Your task to perform on an android device: Open Android settings Image 0: 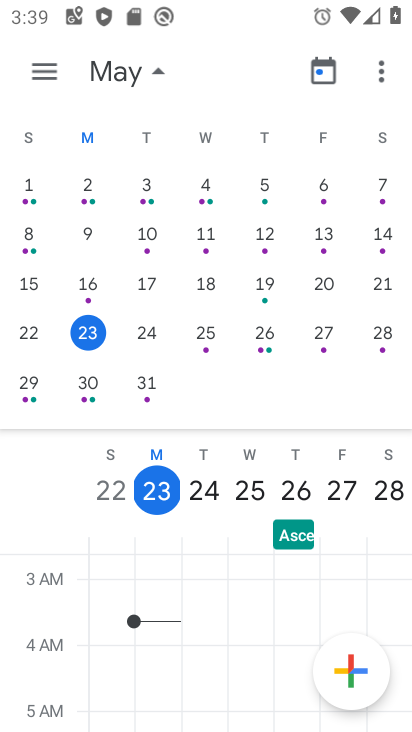
Step 0: press home button
Your task to perform on an android device: Open Android settings Image 1: 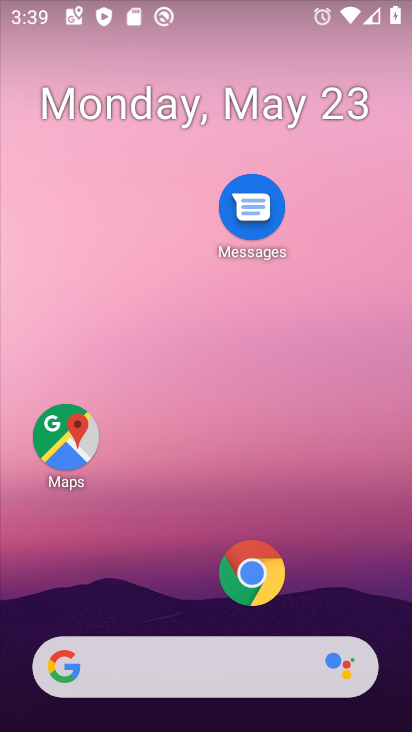
Step 1: drag from (311, 632) to (356, 93)
Your task to perform on an android device: Open Android settings Image 2: 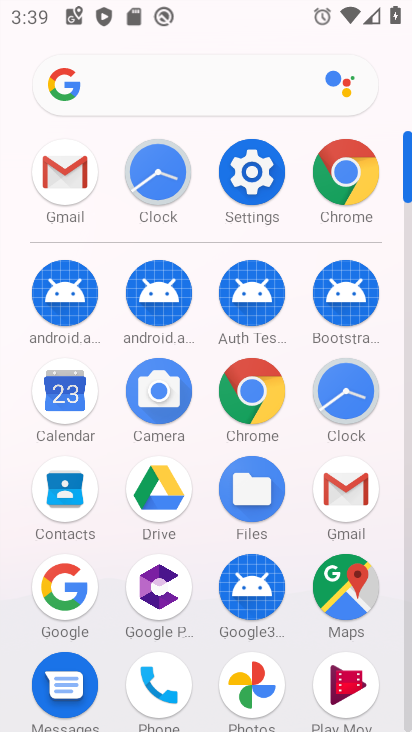
Step 2: click (252, 159)
Your task to perform on an android device: Open Android settings Image 3: 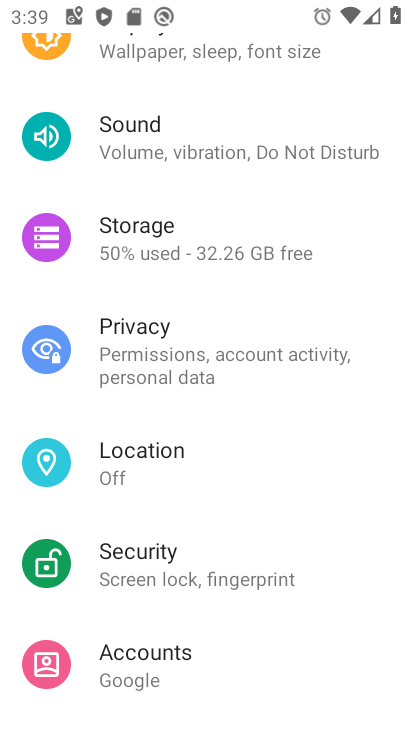
Step 3: drag from (217, 652) to (235, 78)
Your task to perform on an android device: Open Android settings Image 4: 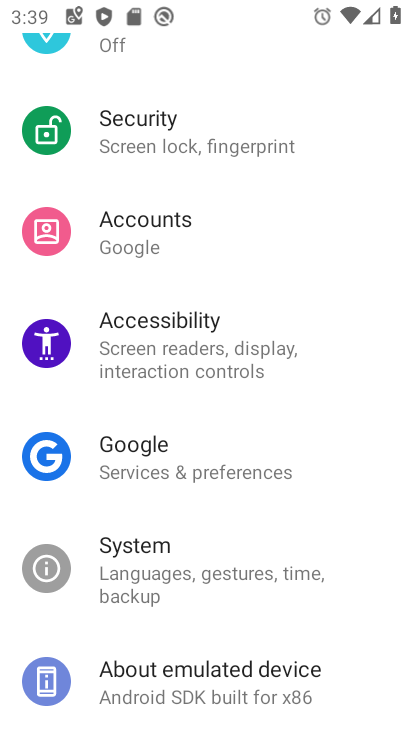
Step 4: click (219, 696)
Your task to perform on an android device: Open Android settings Image 5: 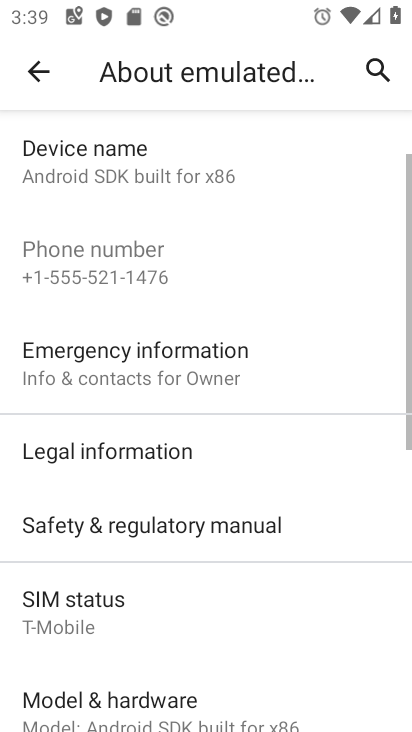
Step 5: drag from (179, 685) to (230, 26)
Your task to perform on an android device: Open Android settings Image 6: 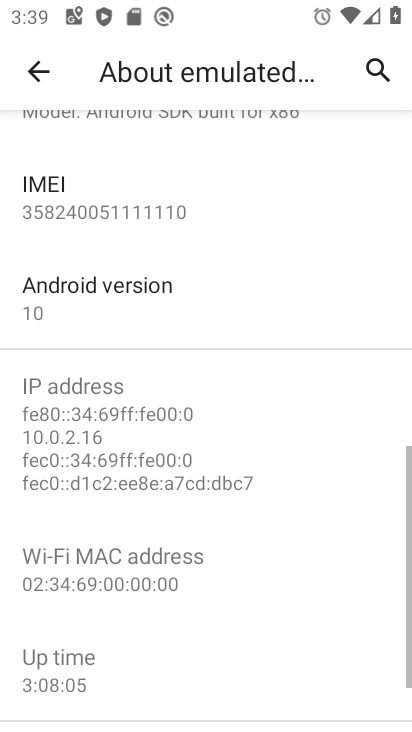
Step 6: click (153, 301)
Your task to perform on an android device: Open Android settings Image 7: 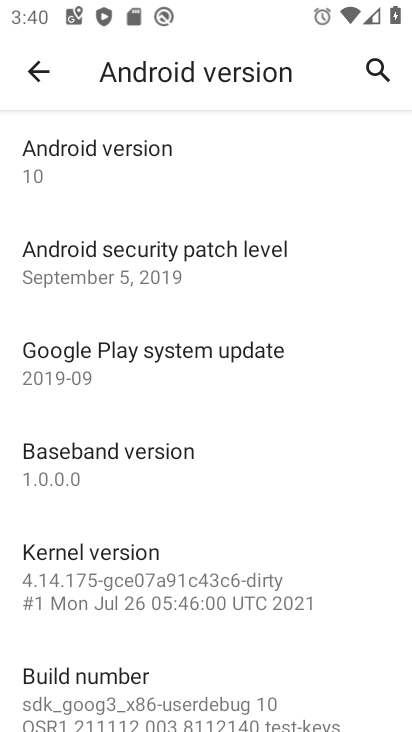
Step 7: task complete